Your task to perform on an android device: What's the weather going to be this weekend? Image 0: 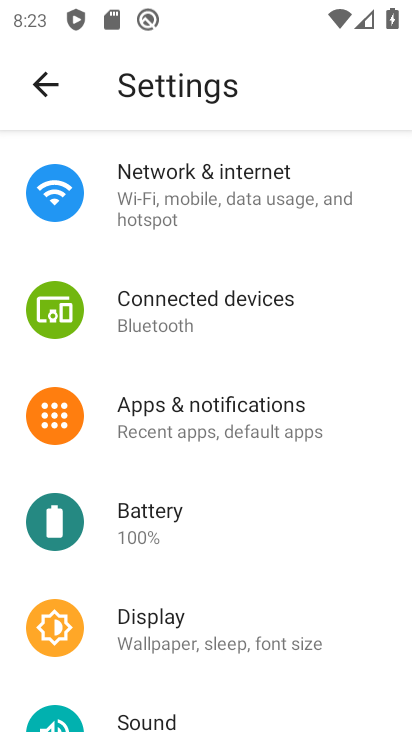
Step 0: press home button
Your task to perform on an android device: What's the weather going to be this weekend? Image 1: 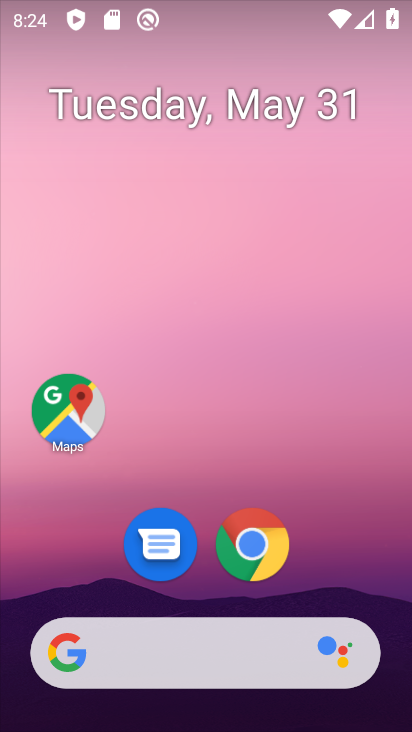
Step 1: drag from (30, 286) to (368, 240)
Your task to perform on an android device: What's the weather going to be this weekend? Image 2: 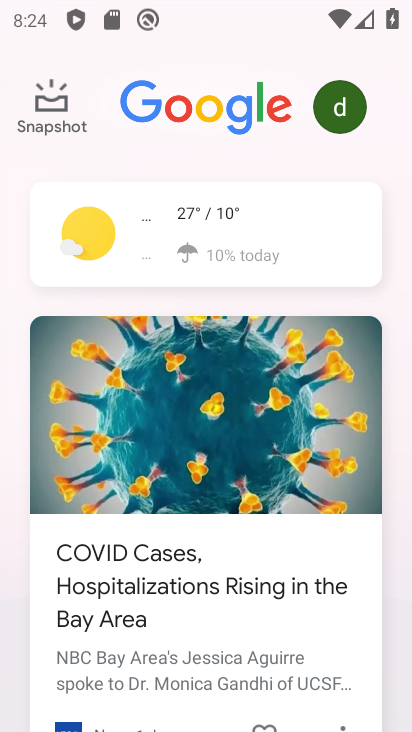
Step 2: click (84, 238)
Your task to perform on an android device: What's the weather going to be this weekend? Image 3: 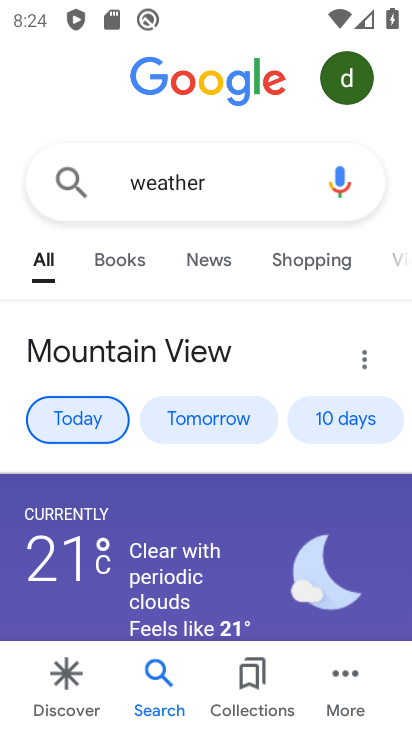
Step 3: click (332, 423)
Your task to perform on an android device: What's the weather going to be this weekend? Image 4: 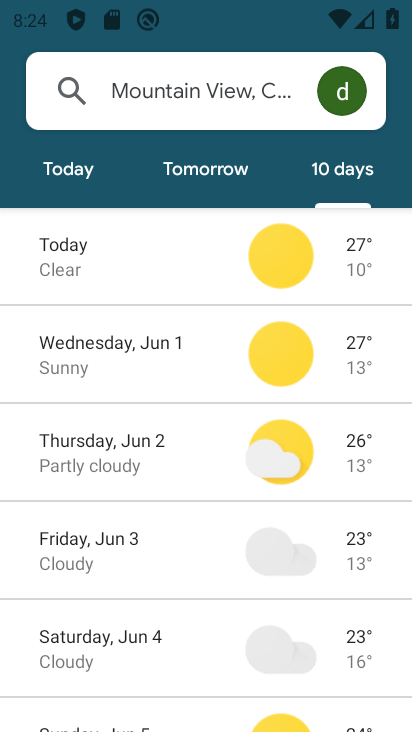
Step 4: task complete